Your task to perform on an android device: turn on the 12-hour format for clock Image 0: 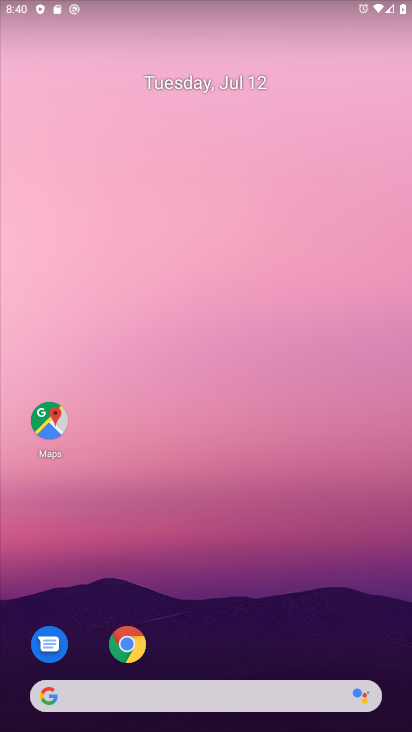
Step 0: drag from (30, 680) to (289, 304)
Your task to perform on an android device: turn on the 12-hour format for clock Image 1: 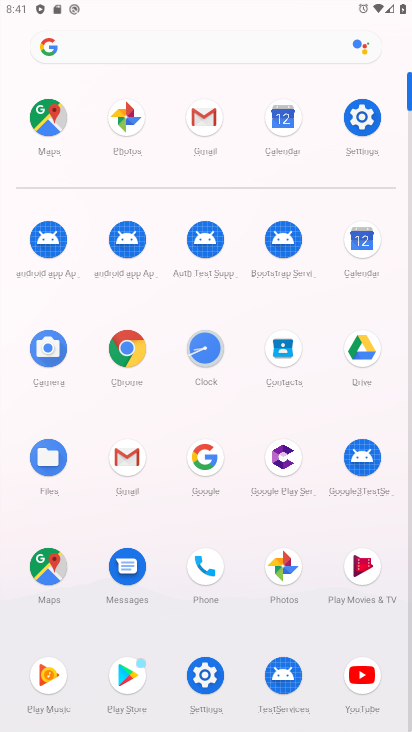
Step 1: click (199, 356)
Your task to perform on an android device: turn on the 12-hour format for clock Image 2: 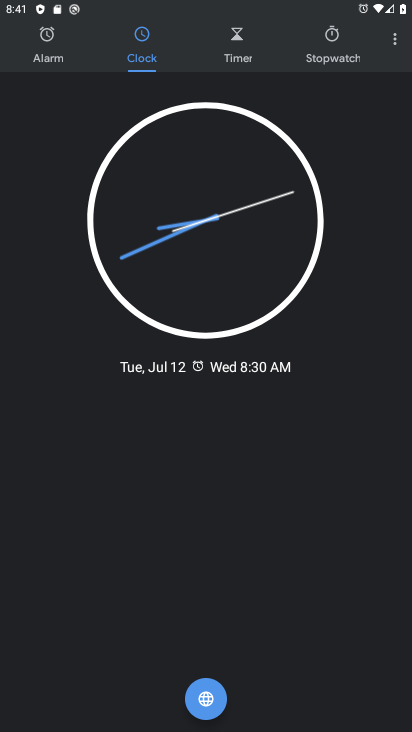
Step 2: click (391, 39)
Your task to perform on an android device: turn on the 12-hour format for clock Image 3: 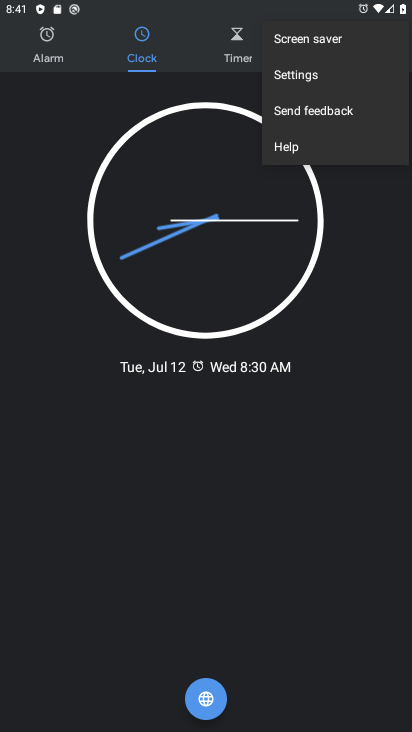
Step 3: click (291, 59)
Your task to perform on an android device: turn on the 12-hour format for clock Image 4: 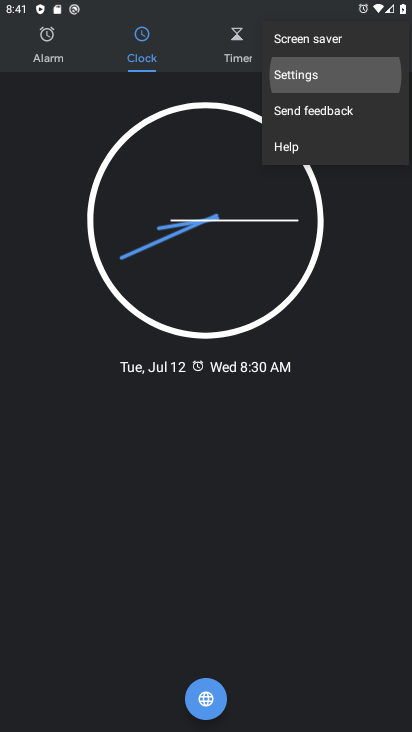
Step 4: click (290, 68)
Your task to perform on an android device: turn on the 12-hour format for clock Image 5: 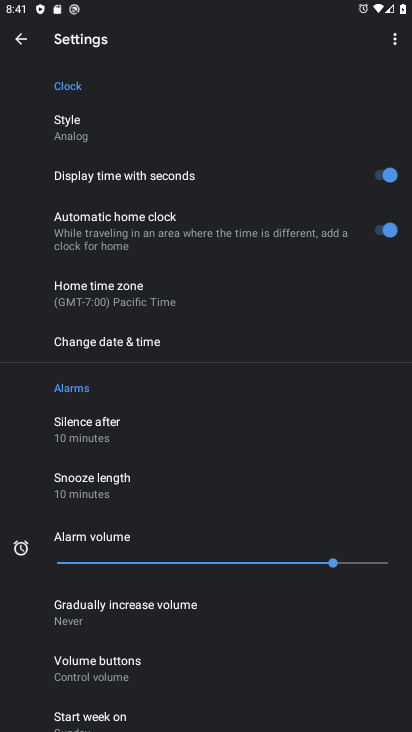
Step 5: drag from (197, 642) to (304, 69)
Your task to perform on an android device: turn on the 12-hour format for clock Image 6: 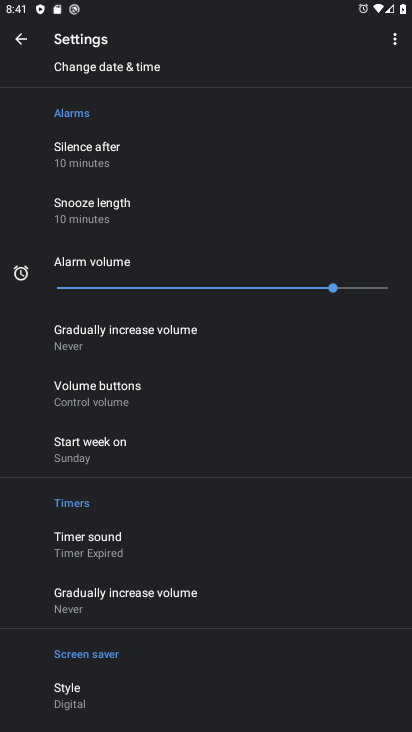
Step 6: drag from (150, 649) to (247, 141)
Your task to perform on an android device: turn on the 12-hour format for clock Image 7: 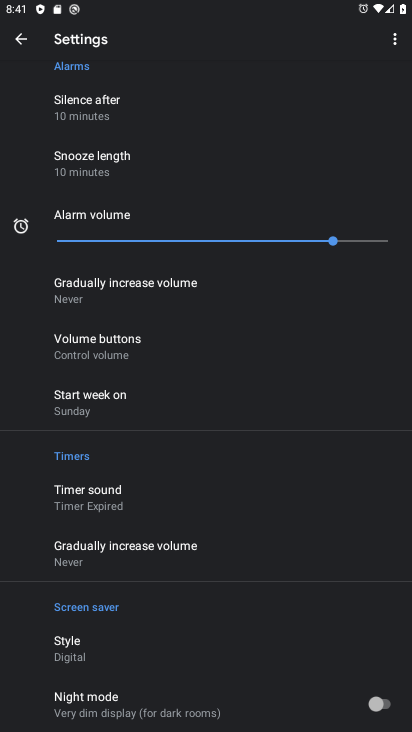
Step 7: drag from (207, 596) to (275, 24)
Your task to perform on an android device: turn on the 12-hour format for clock Image 8: 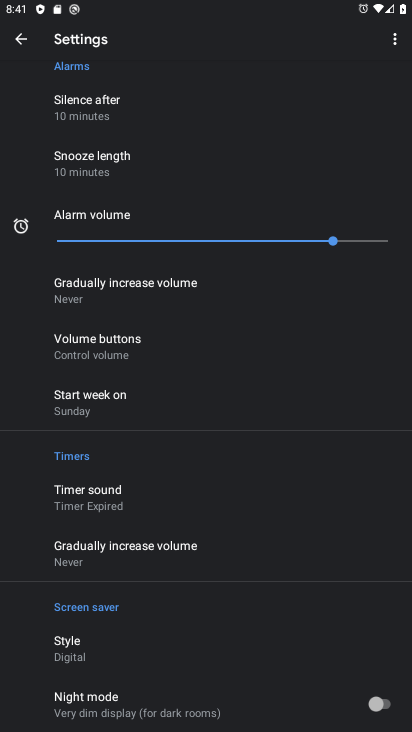
Step 8: drag from (178, 628) to (266, 33)
Your task to perform on an android device: turn on the 12-hour format for clock Image 9: 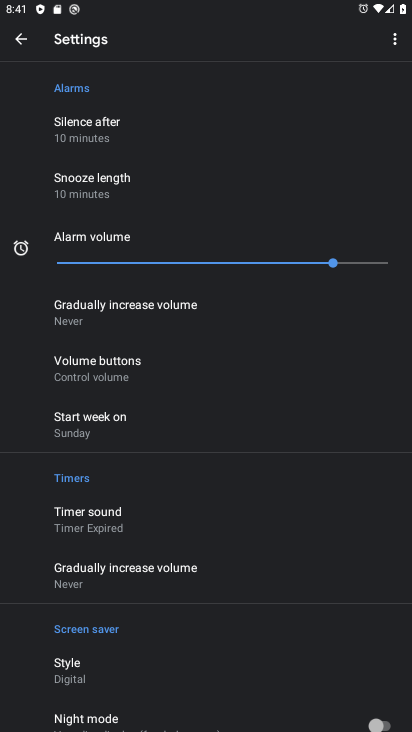
Step 9: drag from (248, 97) to (249, 700)
Your task to perform on an android device: turn on the 12-hour format for clock Image 10: 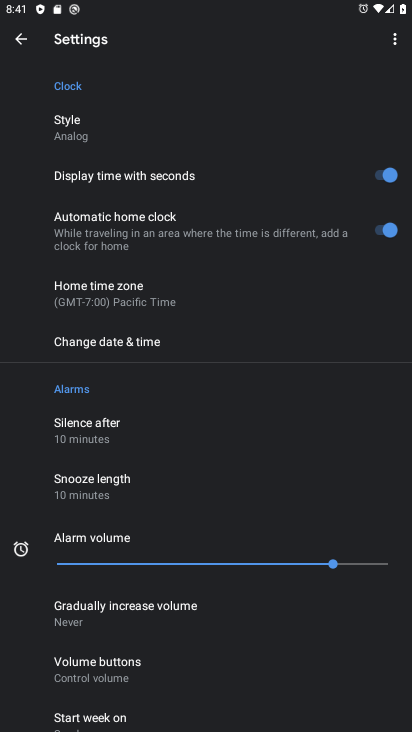
Step 10: click (137, 343)
Your task to perform on an android device: turn on the 12-hour format for clock Image 11: 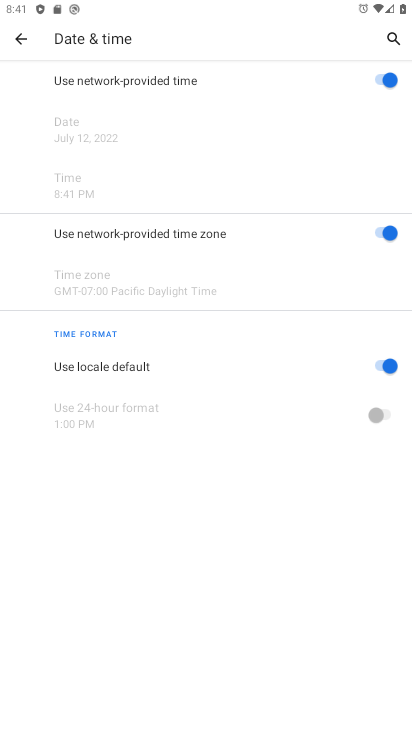
Step 11: click (376, 410)
Your task to perform on an android device: turn on the 12-hour format for clock Image 12: 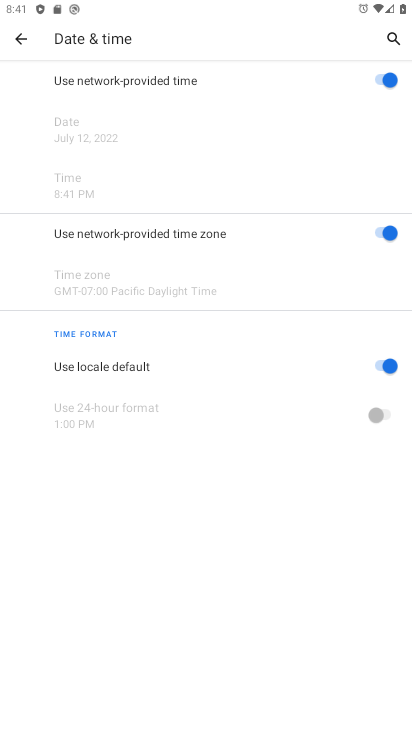
Step 12: click (390, 369)
Your task to perform on an android device: turn on the 12-hour format for clock Image 13: 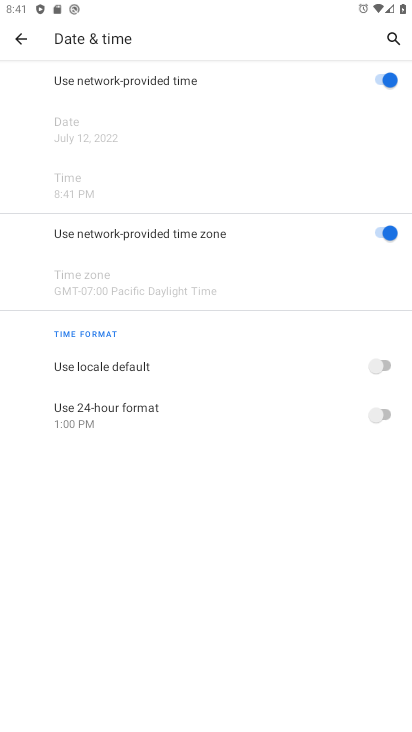
Step 13: click (373, 367)
Your task to perform on an android device: turn on the 12-hour format for clock Image 14: 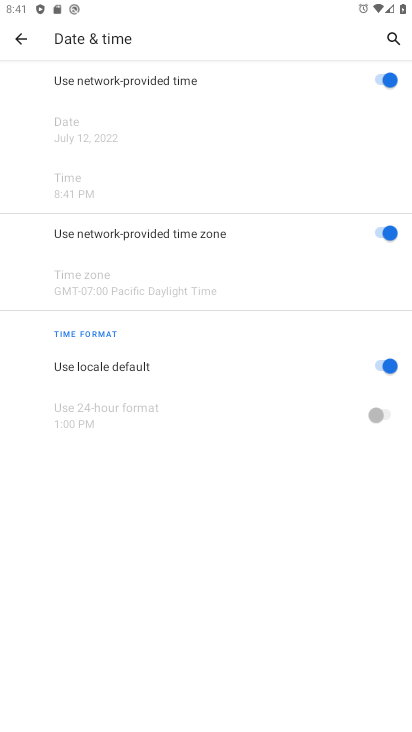
Step 14: task complete